Your task to perform on an android device: Go to ESPN.com Image 0: 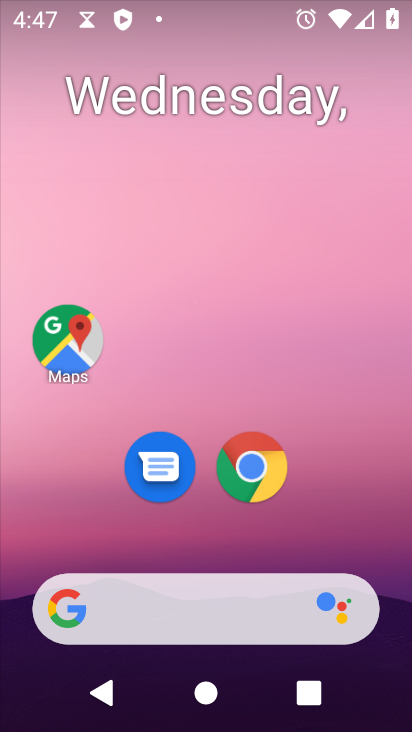
Step 0: click (279, 468)
Your task to perform on an android device: Go to ESPN.com Image 1: 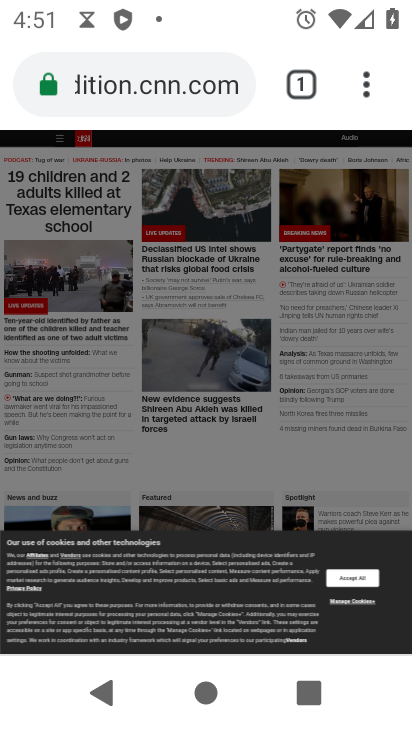
Step 1: click (185, 76)
Your task to perform on an android device: Go to ESPN.com Image 2: 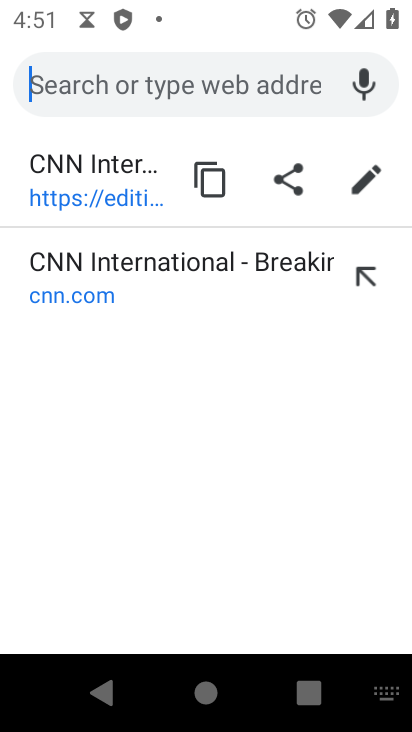
Step 2: type "espn"
Your task to perform on an android device: Go to ESPN.com Image 3: 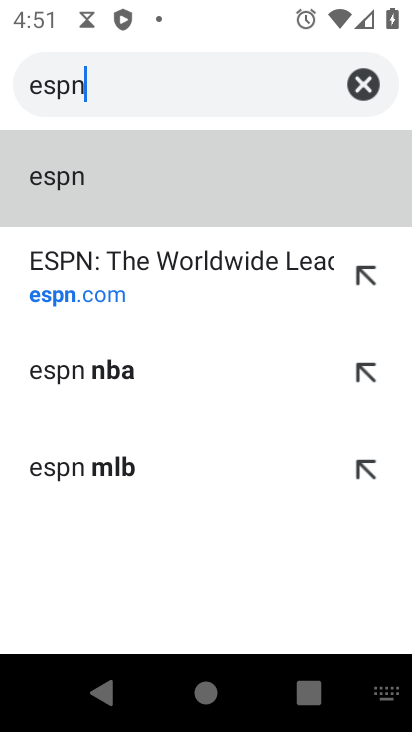
Step 3: click (92, 268)
Your task to perform on an android device: Go to ESPN.com Image 4: 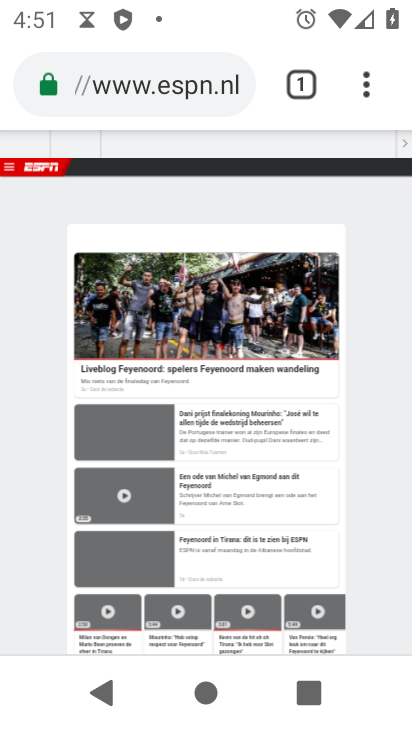
Step 4: task complete